Your task to perform on an android device: Search for Italian restaurants on Maps Image 0: 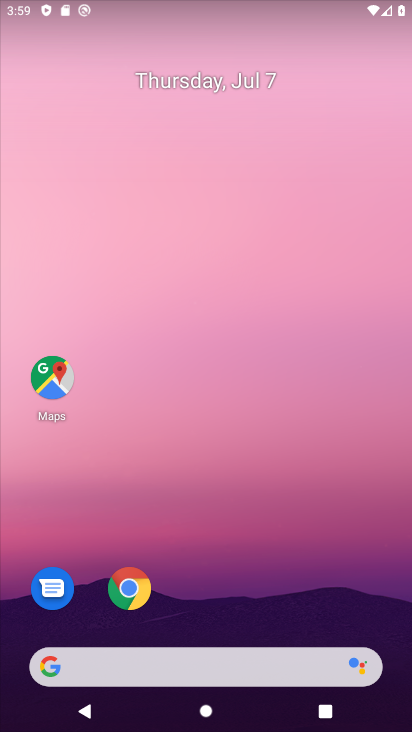
Step 0: press home button
Your task to perform on an android device: Search for Italian restaurants on Maps Image 1: 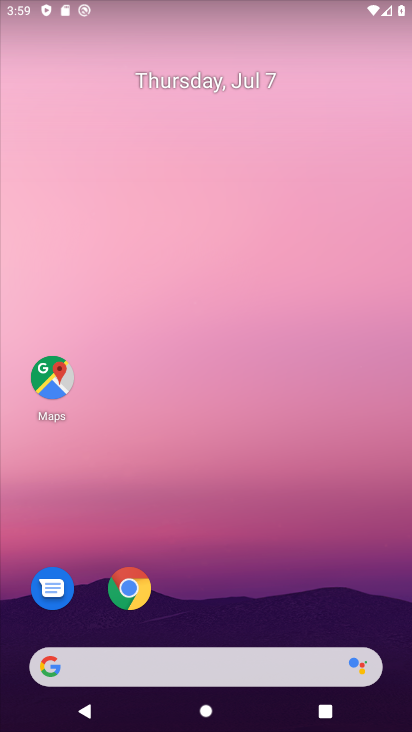
Step 1: drag from (236, 609) to (236, 135)
Your task to perform on an android device: Search for Italian restaurants on Maps Image 2: 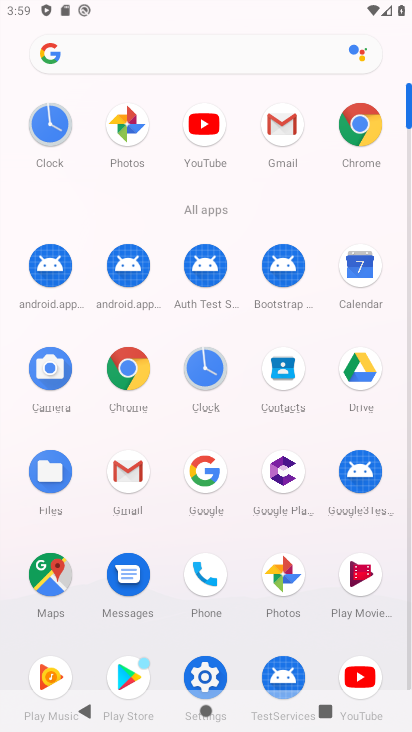
Step 2: click (37, 583)
Your task to perform on an android device: Search for Italian restaurants on Maps Image 3: 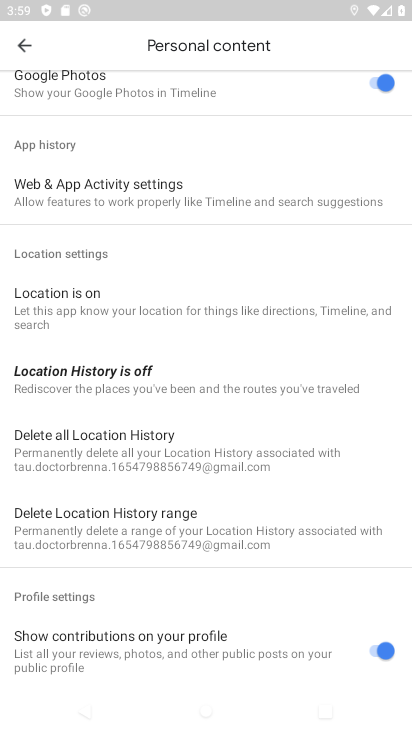
Step 3: click (25, 41)
Your task to perform on an android device: Search for Italian restaurants on Maps Image 4: 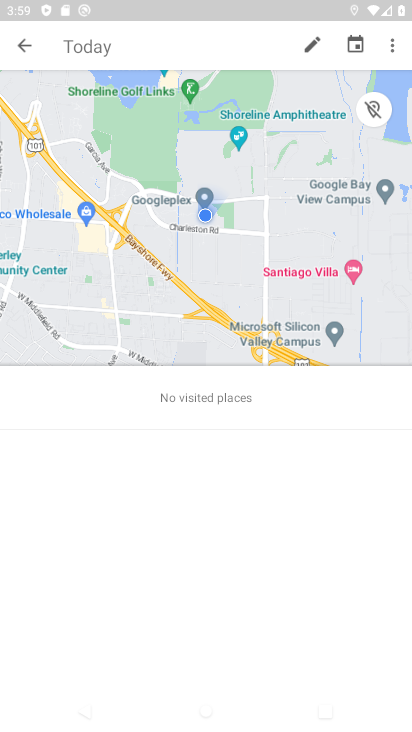
Step 4: click (166, 50)
Your task to perform on an android device: Search for Italian restaurants on Maps Image 5: 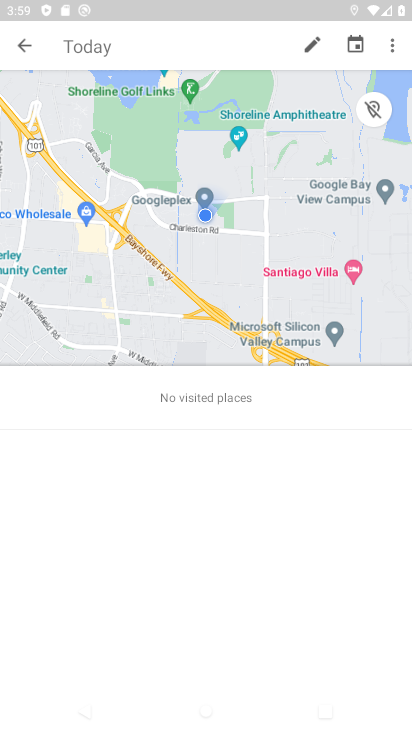
Step 5: click (19, 47)
Your task to perform on an android device: Search for Italian restaurants on Maps Image 6: 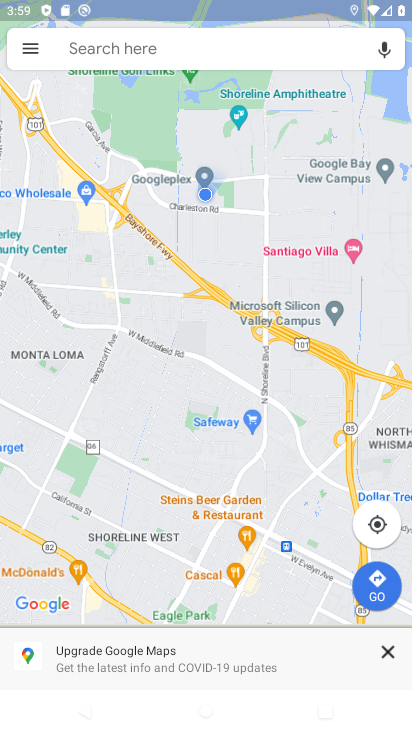
Step 6: click (123, 53)
Your task to perform on an android device: Search for Italian restaurants on Maps Image 7: 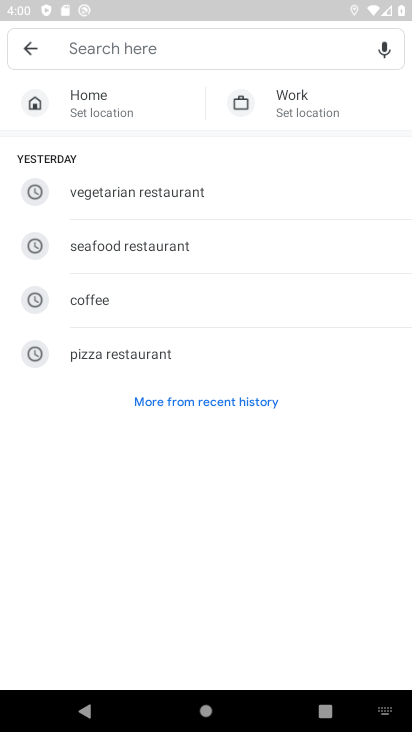
Step 7: type "Italian restaurants"
Your task to perform on an android device: Search for Italian restaurants on Maps Image 8: 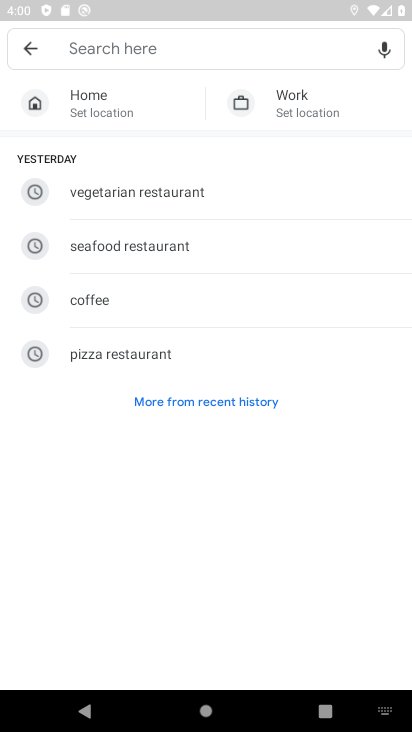
Step 8: click (183, 48)
Your task to perform on an android device: Search for Italian restaurants on Maps Image 9: 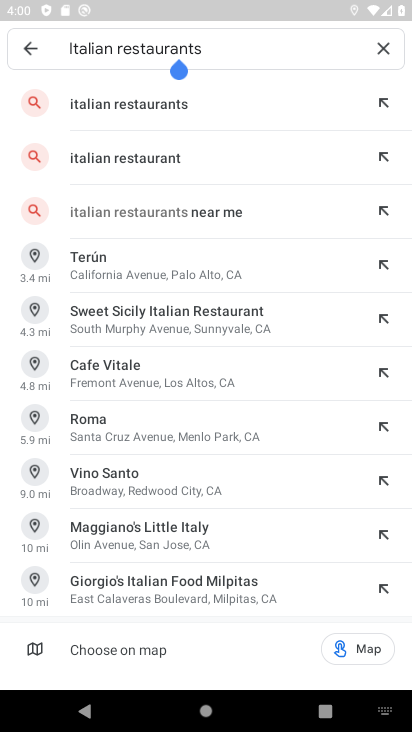
Step 9: click (133, 108)
Your task to perform on an android device: Search for Italian restaurants on Maps Image 10: 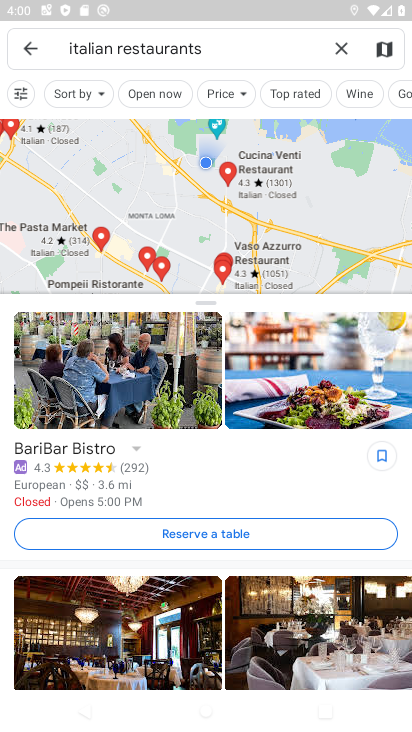
Step 10: task complete